Your task to perform on an android device: Find coffee shops on Maps Image 0: 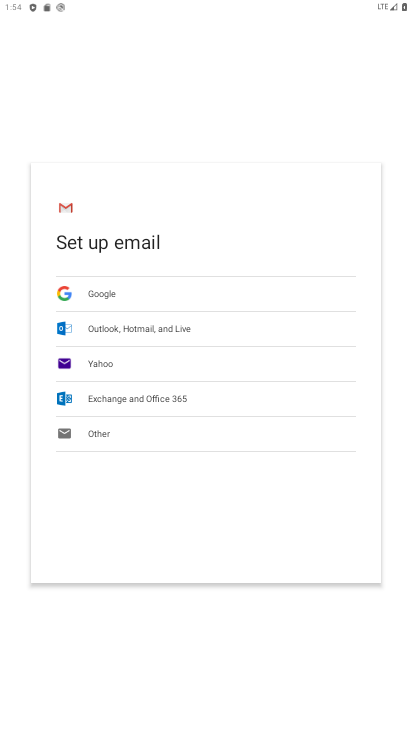
Step 0: press home button
Your task to perform on an android device: Find coffee shops on Maps Image 1: 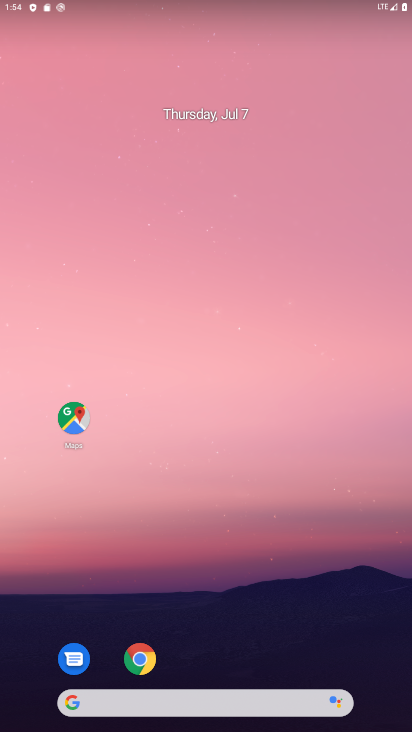
Step 1: click (76, 419)
Your task to perform on an android device: Find coffee shops on Maps Image 2: 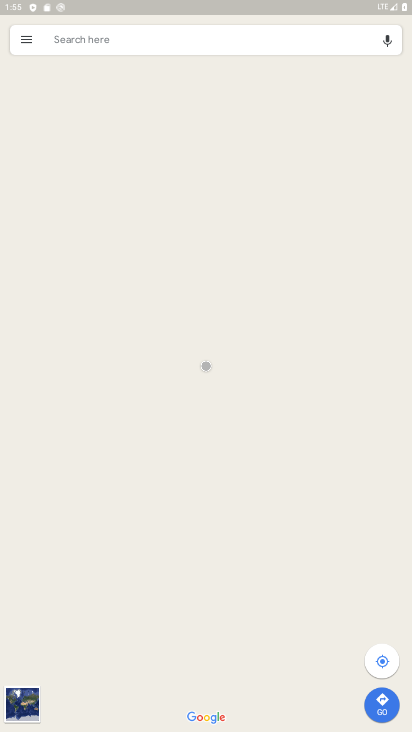
Step 2: click (159, 34)
Your task to perform on an android device: Find coffee shops on Maps Image 3: 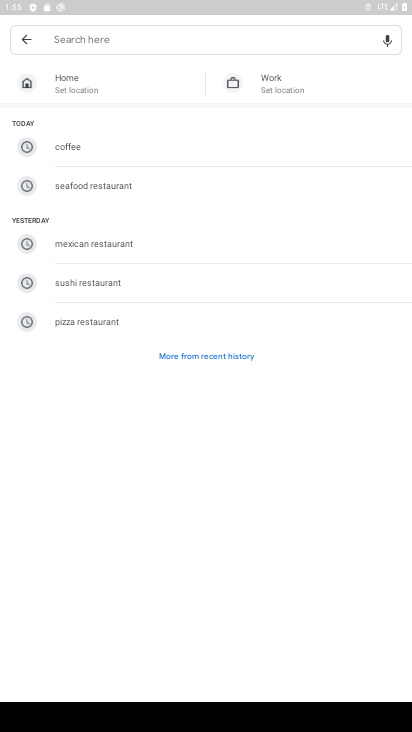
Step 3: type "coffee shops"
Your task to perform on an android device: Find coffee shops on Maps Image 4: 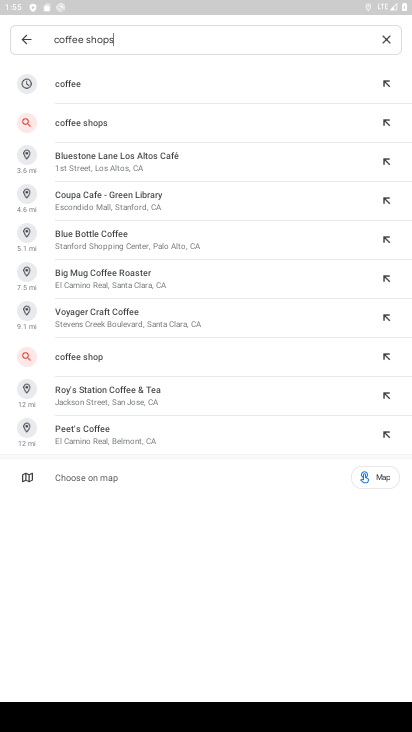
Step 4: click (87, 122)
Your task to perform on an android device: Find coffee shops on Maps Image 5: 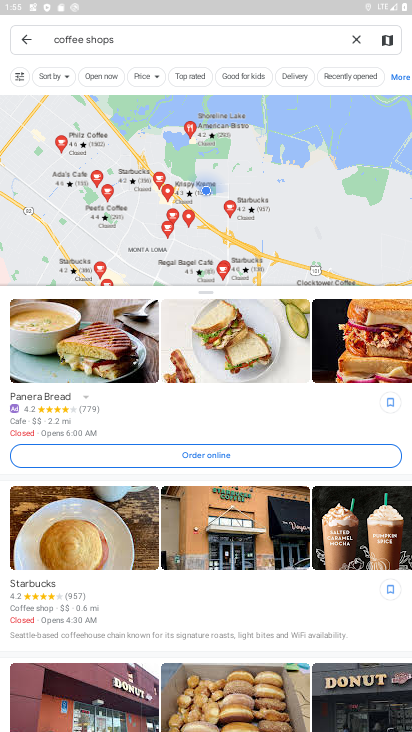
Step 5: task complete